Your task to perform on an android device: Open Amazon Image 0: 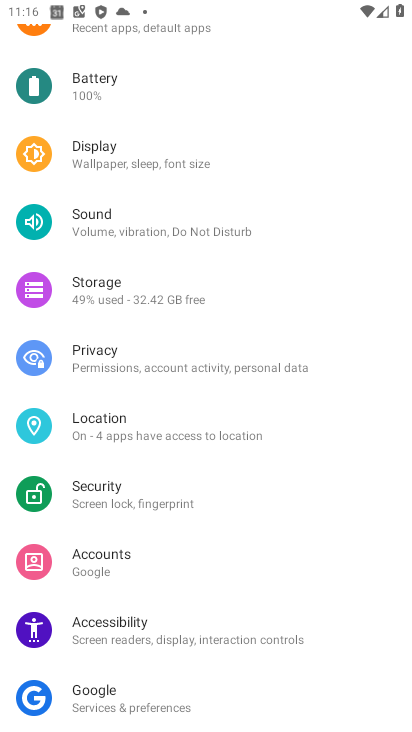
Step 0: press home button
Your task to perform on an android device: Open Amazon Image 1: 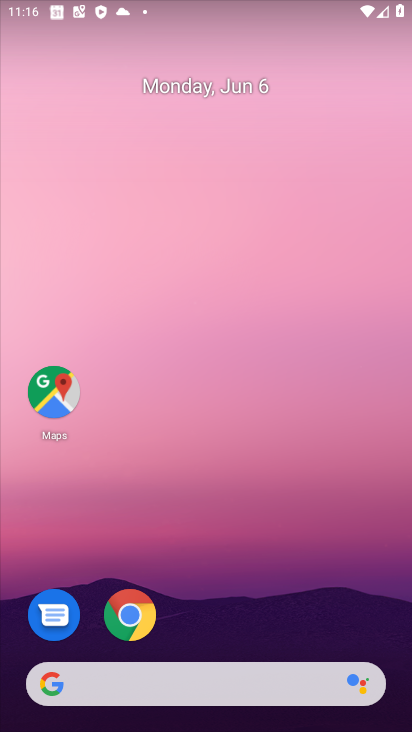
Step 1: click (227, 687)
Your task to perform on an android device: Open Amazon Image 2: 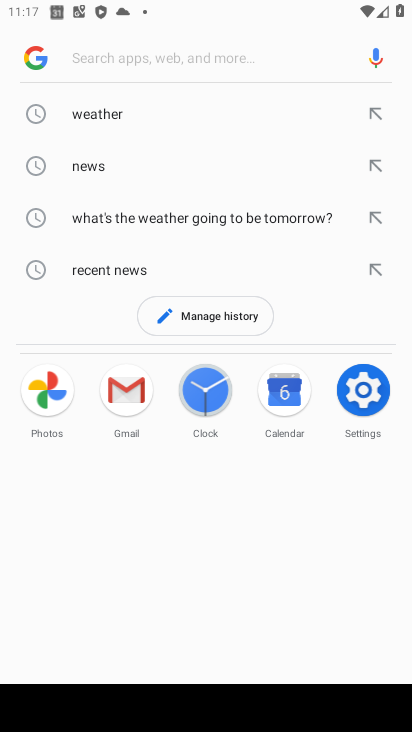
Step 2: type "amazoon"
Your task to perform on an android device: Open Amazon Image 3: 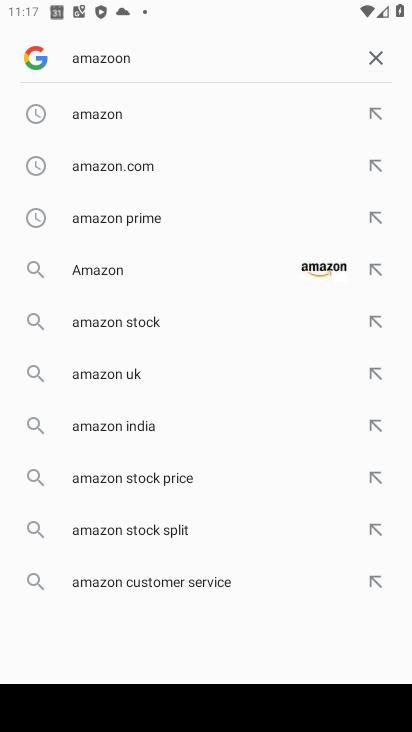
Step 3: click (156, 104)
Your task to perform on an android device: Open Amazon Image 4: 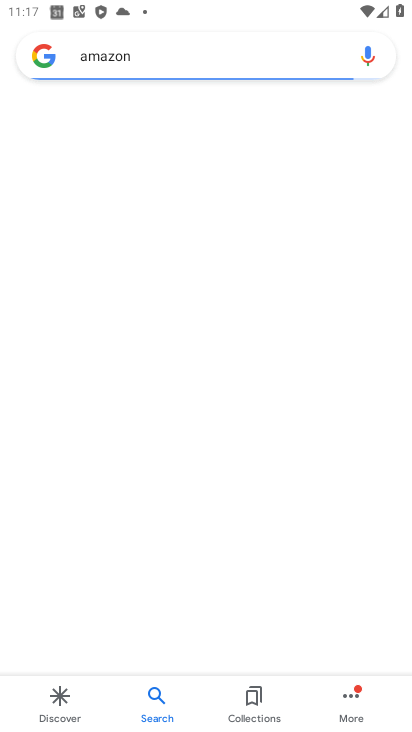
Step 4: task complete